Your task to perform on an android device: Go to settings Image 0: 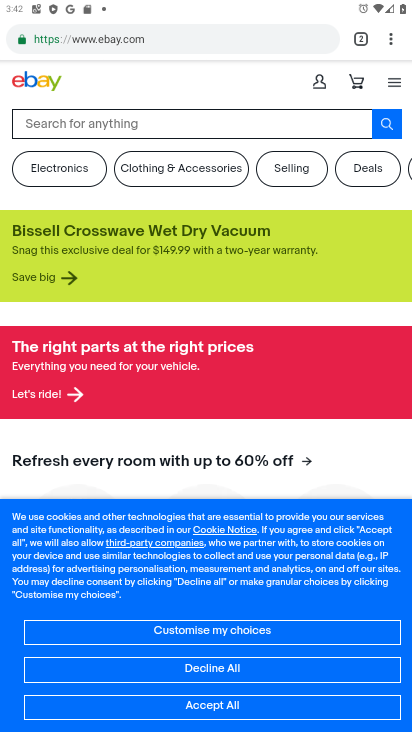
Step 0: press home button
Your task to perform on an android device: Go to settings Image 1: 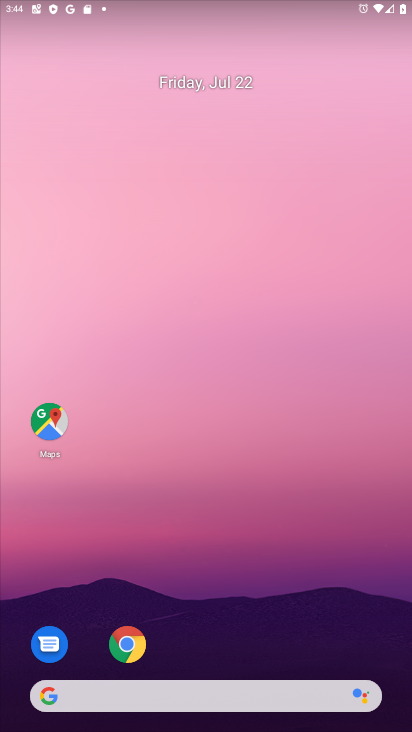
Step 1: drag from (292, 585) to (296, 337)
Your task to perform on an android device: Go to settings Image 2: 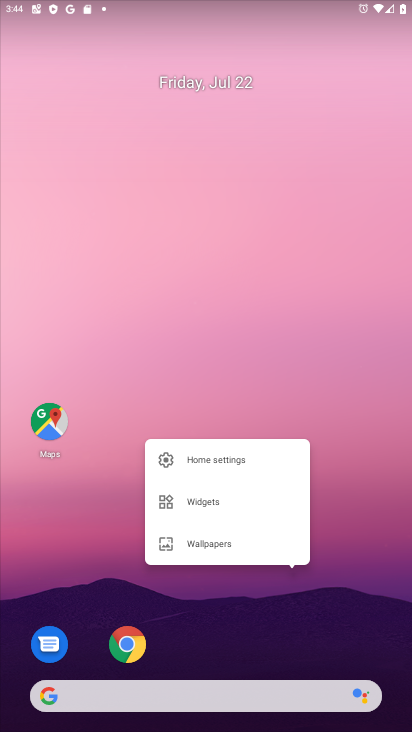
Step 2: click (337, 391)
Your task to perform on an android device: Go to settings Image 3: 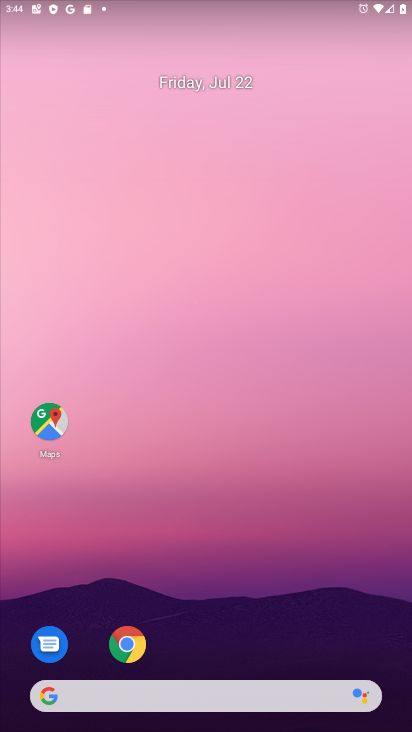
Step 3: drag from (335, 498) to (347, 107)
Your task to perform on an android device: Go to settings Image 4: 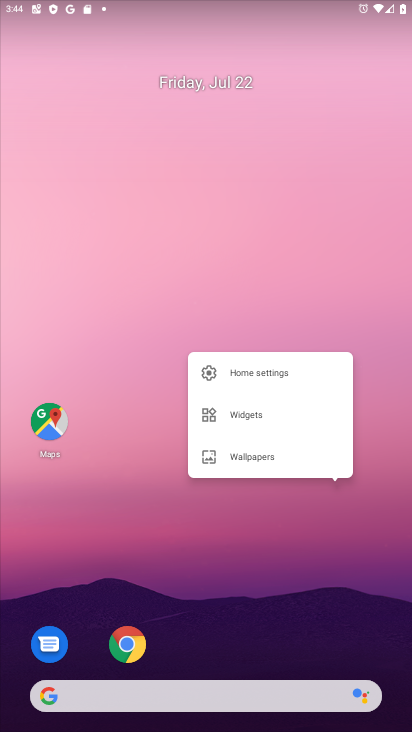
Step 4: click (279, 517)
Your task to perform on an android device: Go to settings Image 5: 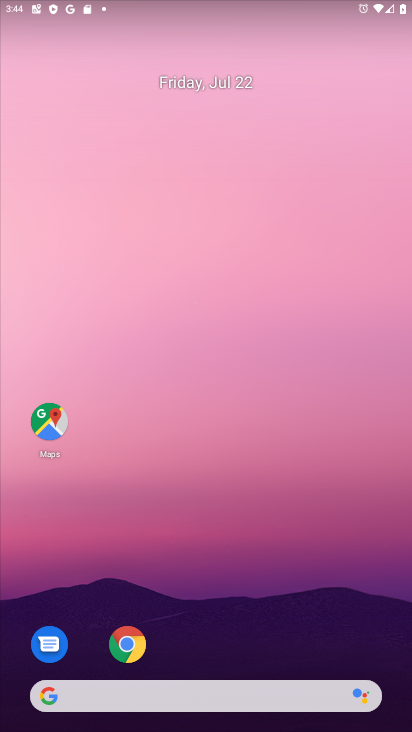
Step 5: drag from (279, 517) to (316, 302)
Your task to perform on an android device: Go to settings Image 6: 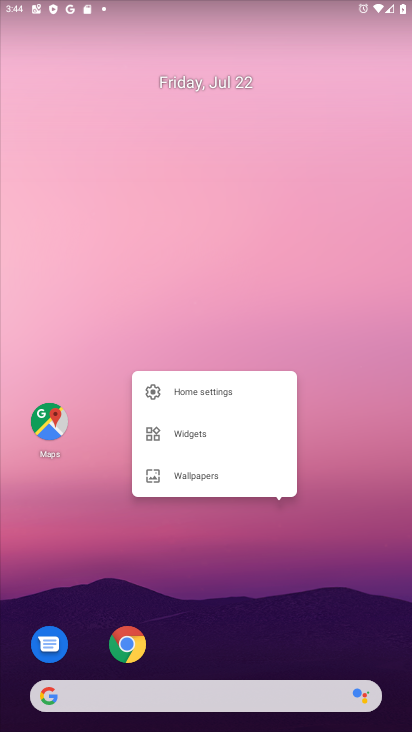
Step 6: click (336, 605)
Your task to perform on an android device: Go to settings Image 7: 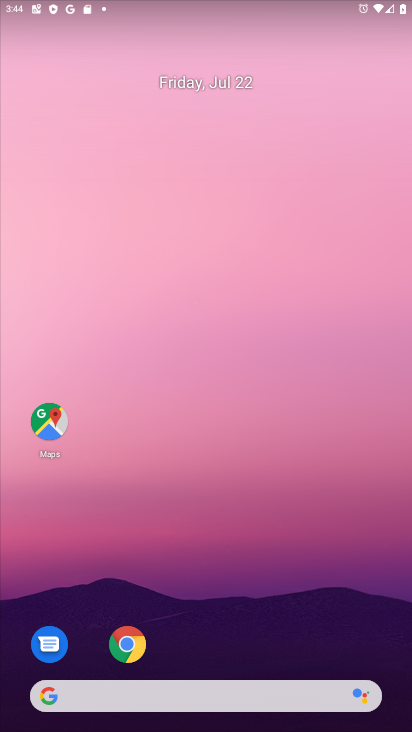
Step 7: drag from (204, 513) to (241, 223)
Your task to perform on an android device: Go to settings Image 8: 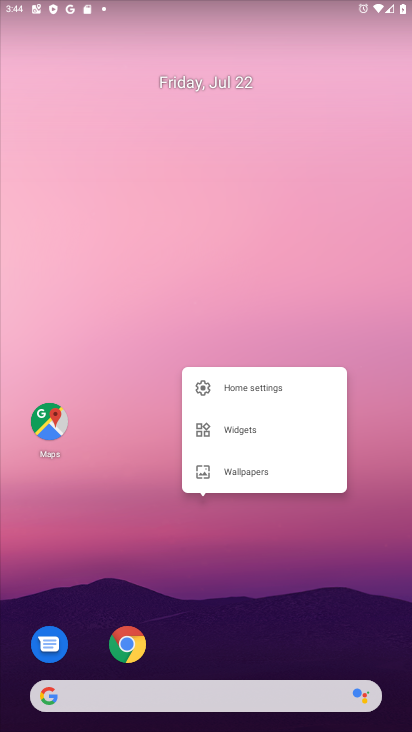
Step 8: click (241, 223)
Your task to perform on an android device: Go to settings Image 9: 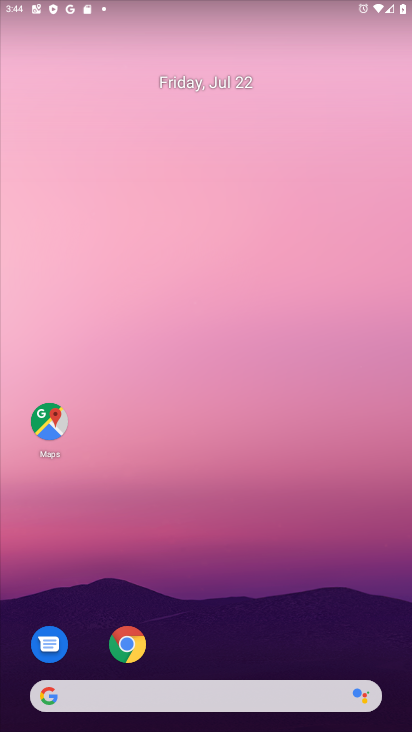
Step 9: drag from (264, 483) to (278, 201)
Your task to perform on an android device: Go to settings Image 10: 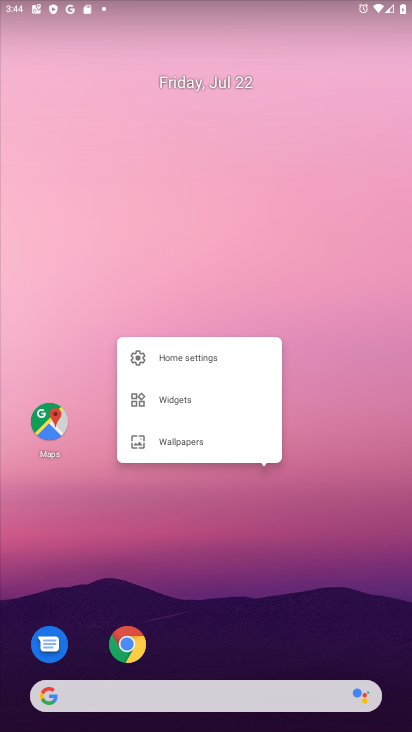
Step 10: click (278, 201)
Your task to perform on an android device: Go to settings Image 11: 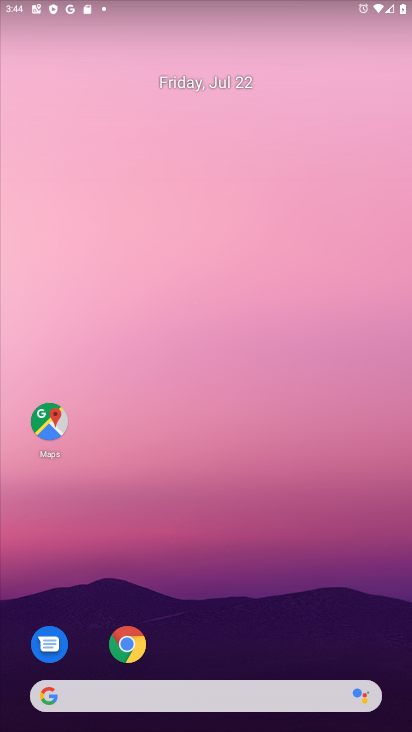
Step 11: drag from (236, 499) to (272, 347)
Your task to perform on an android device: Go to settings Image 12: 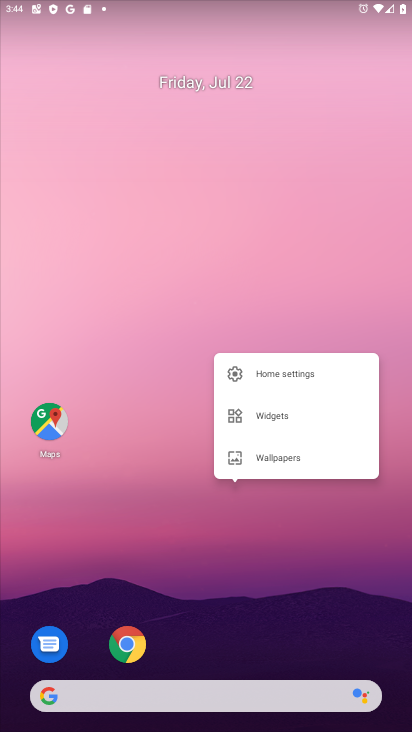
Step 12: click (247, 283)
Your task to perform on an android device: Go to settings Image 13: 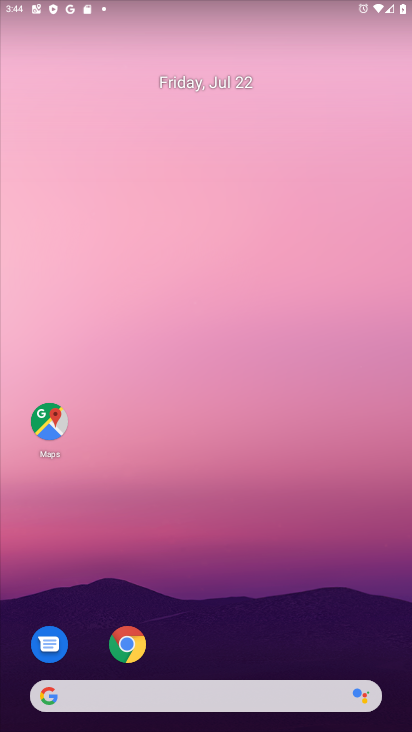
Step 13: click (225, 370)
Your task to perform on an android device: Go to settings Image 14: 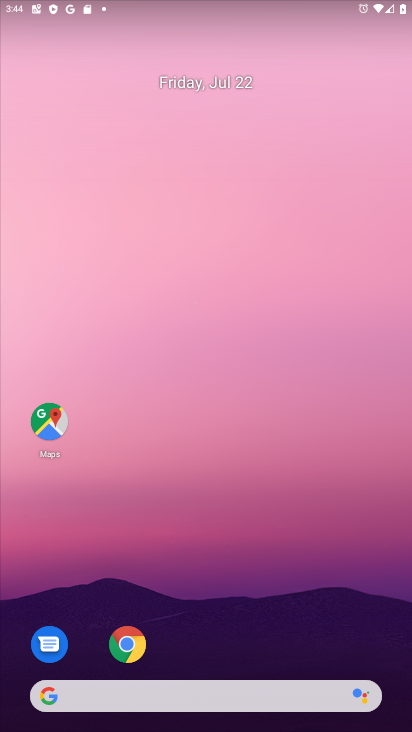
Step 14: click (225, 370)
Your task to perform on an android device: Go to settings Image 15: 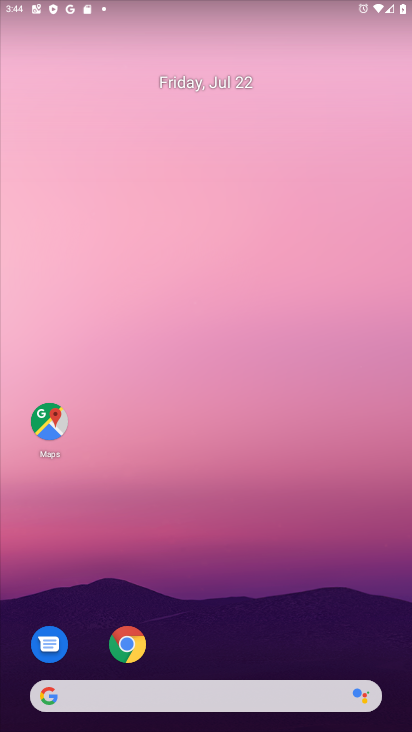
Step 15: drag from (252, 587) to (232, 238)
Your task to perform on an android device: Go to settings Image 16: 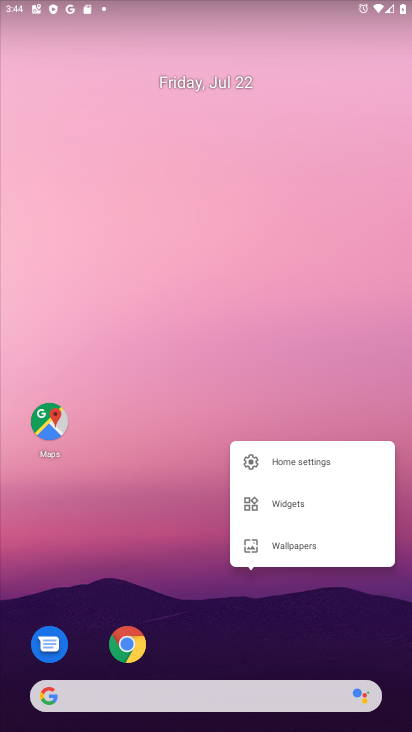
Step 16: click (242, 273)
Your task to perform on an android device: Go to settings Image 17: 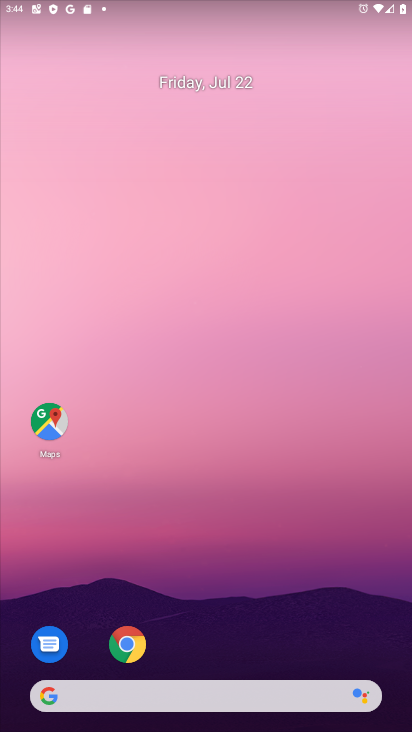
Step 17: drag from (261, 404) to (218, 159)
Your task to perform on an android device: Go to settings Image 18: 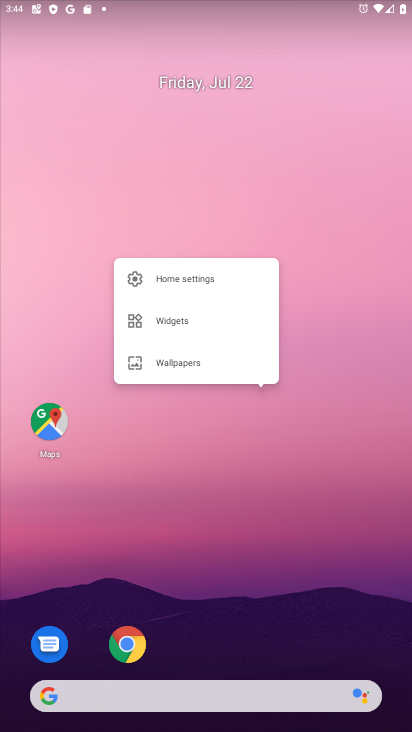
Step 18: click (283, 555)
Your task to perform on an android device: Go to settings Image 19: 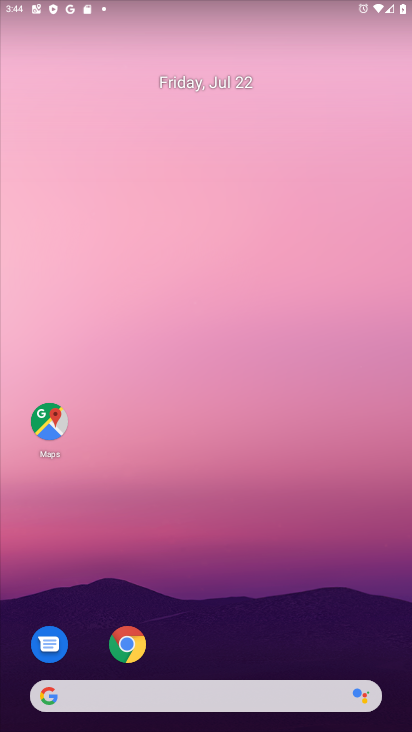
Step 19: drag from (231, 551) to (212, 292)
Your task to perform on an android device: Go to settings Image 20: 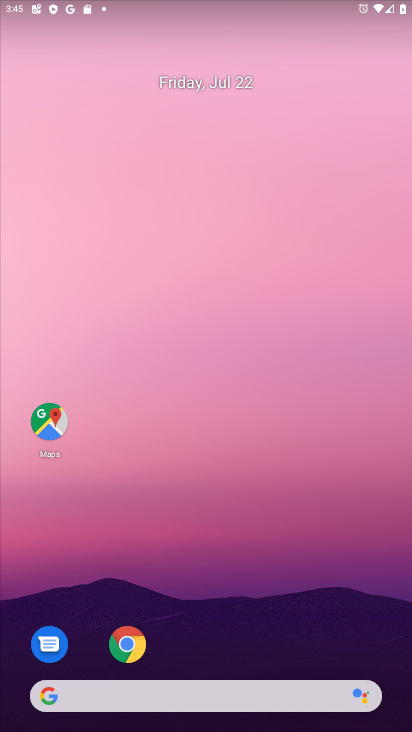
Step 20: drag from (254, 558) to (187, 133)
Your task to perform on an android device: Go to settings Image 21: 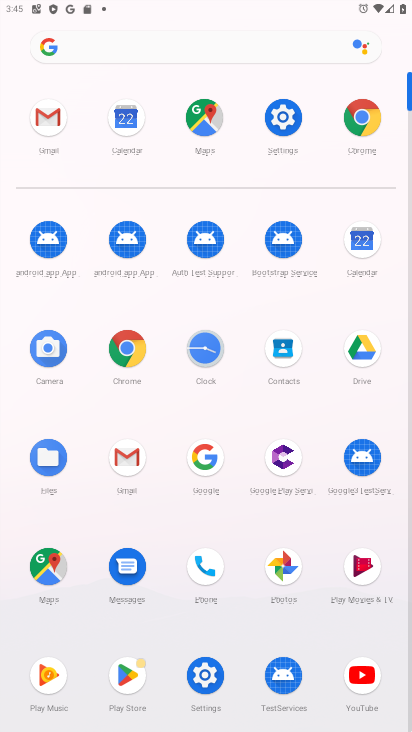
Step 21: click (278, 116)
Your task to perform on an android device: Go to settings Image 22: 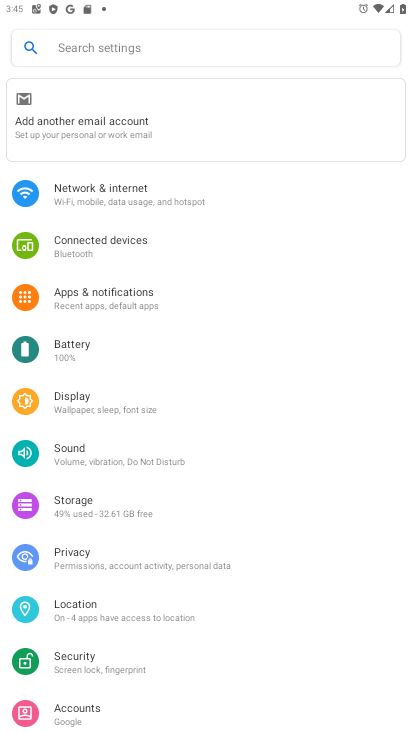
Step 22: task complete